Your task to perform on an android device: Go to Yahoo.com Image 0: 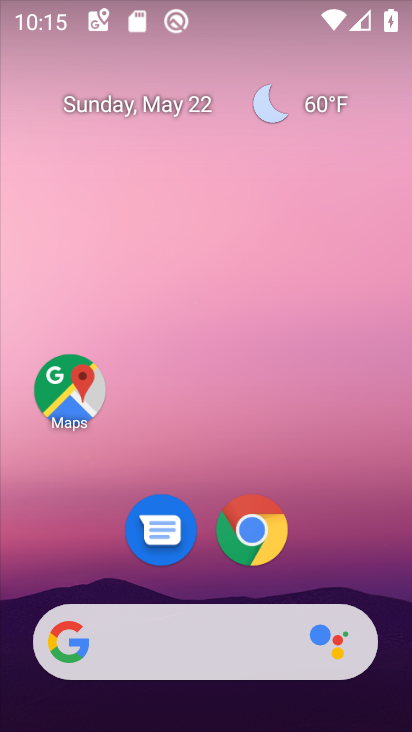
Step 0: click (249, 524)
Your task to perform on an android device: Go to Yahoo.com Image 1: 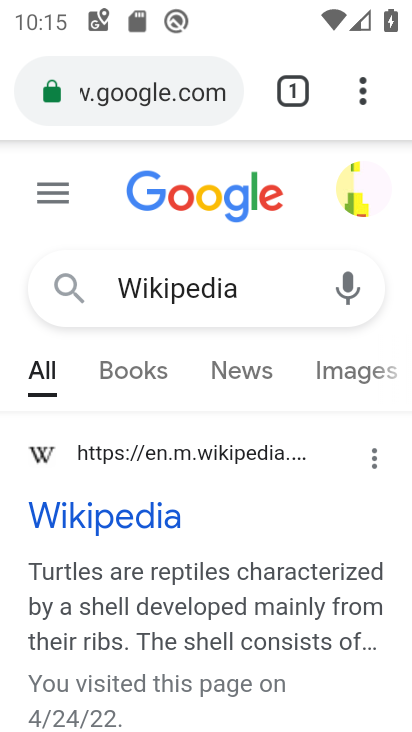
Step 1: click (219, 86)
Your task to perform on an android device: Go to Yahoo.com Image 2: 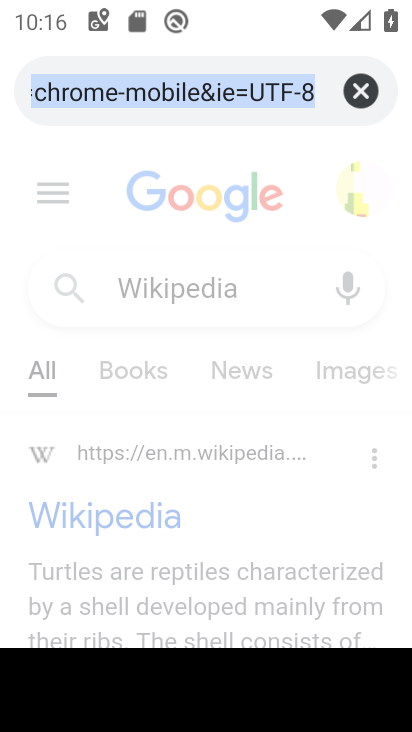
Step 2: click (248, 87)
Your task to perform on an android device: Go to Yahoo.com Image 3: 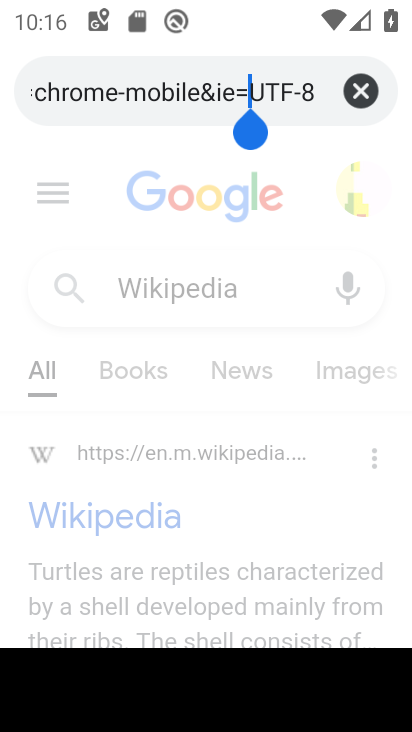
Step 3: click (354, 89)
Your task to perform on an android device: Go to Yahoo.com Image 4: 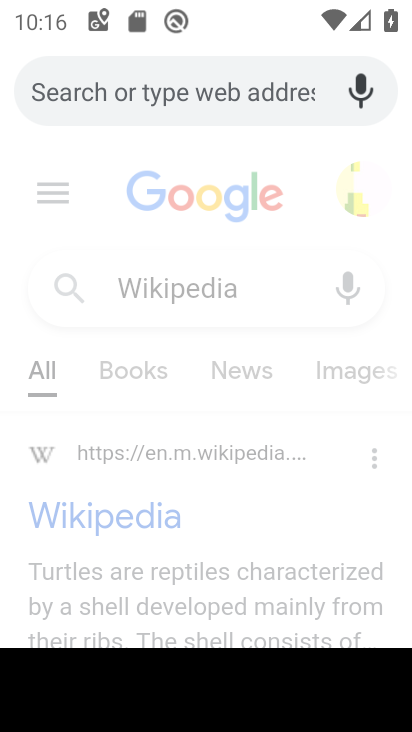
Step 4: click (272, 90)
Your task to perform on an android device: Go to Yahoo.com Image 5: 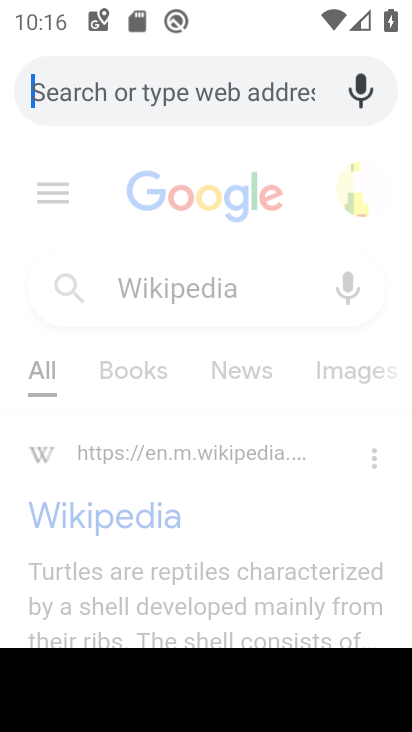
Step 5: type "Yahoo.com"
Your task to perform on an android device: Go to Yahoo.com Image 6: 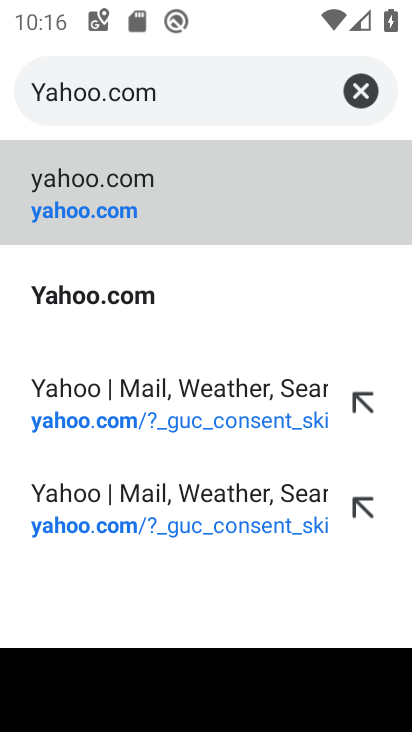
Step 6: click (91, 293)
Your task to perform on an android device: Go to Yahoo.com Image 7: 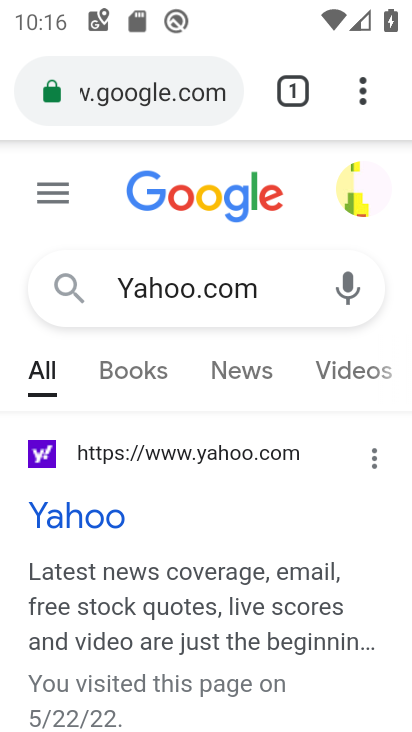
Step 7: task complete